Your task to perform on an android device: turn on the 24-hour format for clock Image 0: 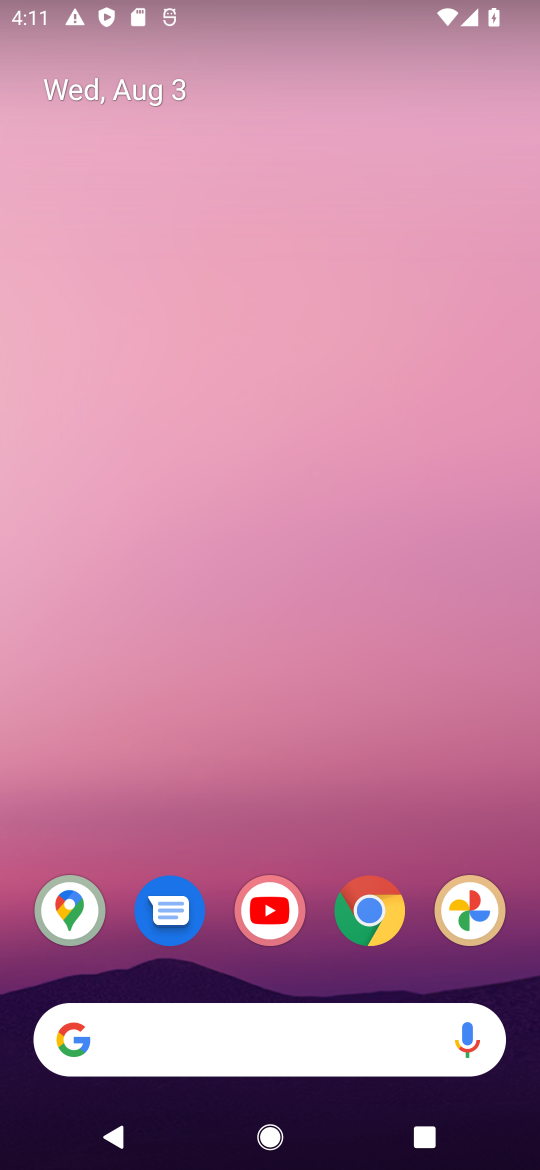
Step 0: press home button
Your task to perform on an android device: turn on the 24-hour format for clock Image 1: 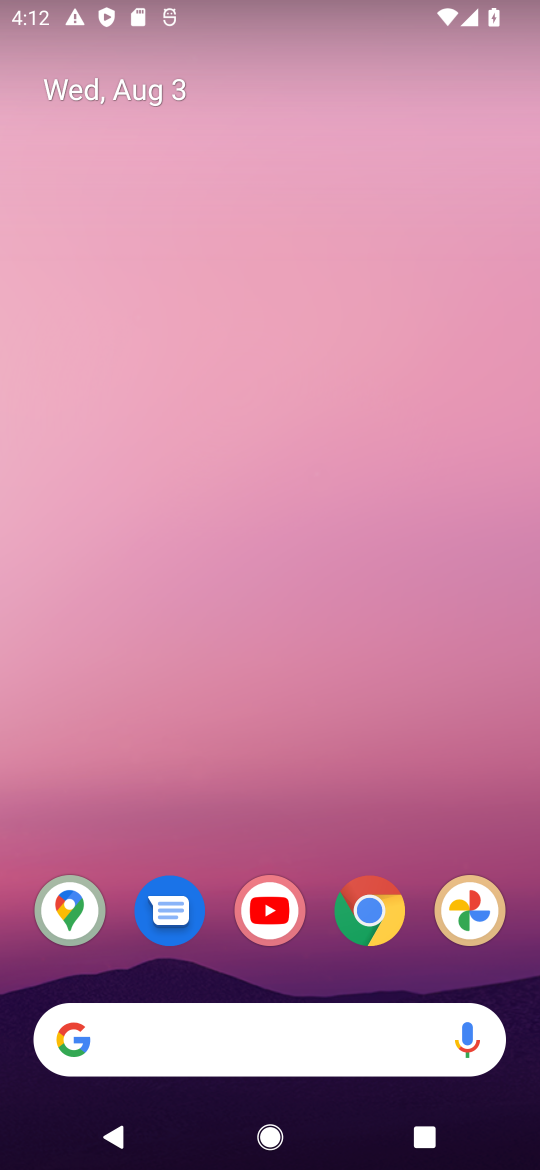
Step 1: drag from (312, 850) to (313, 0)
Your task to perform on an android device: turn on the 24-hour format for clock Image 2: 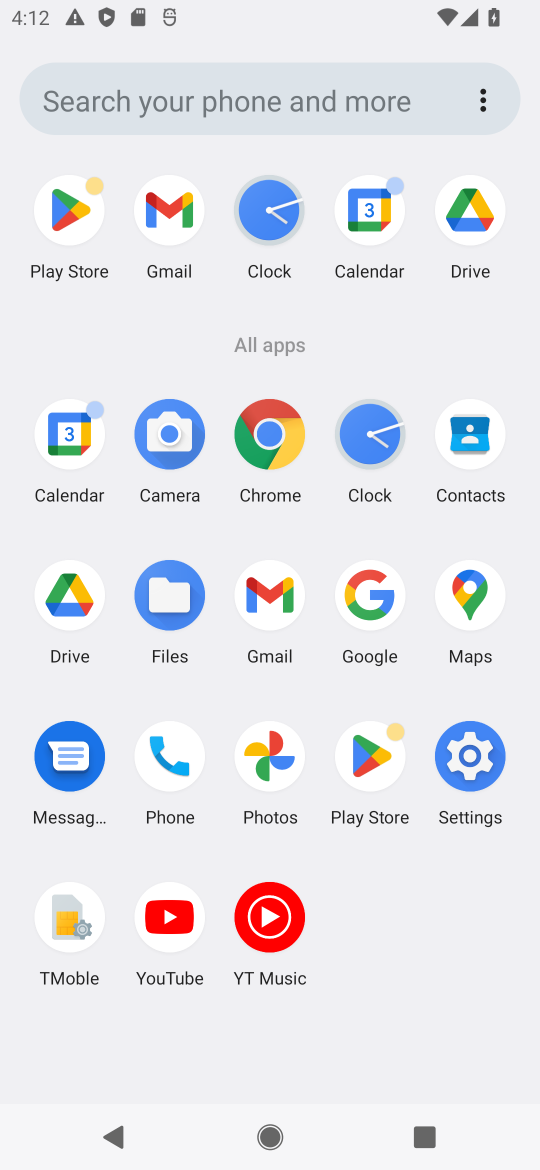
Step 2: click (364, 429)
Your task to perform on an android device: turn on the 24-hour format for clock Image 3: 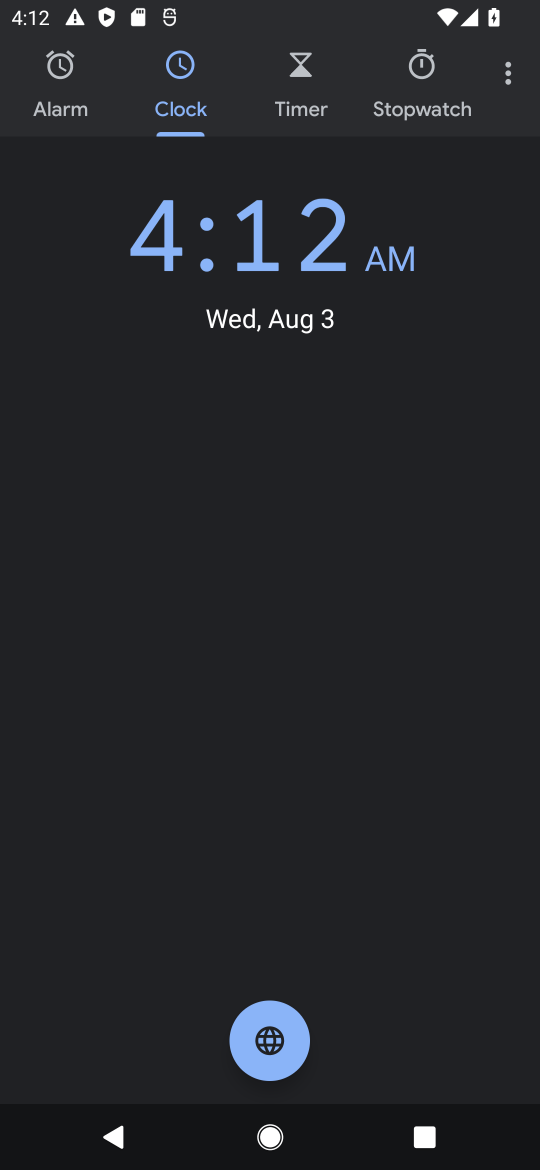
Step 3: click (503, 65)
Your task to perform on an android device: turn on the 24-hour format for clock Image 4: 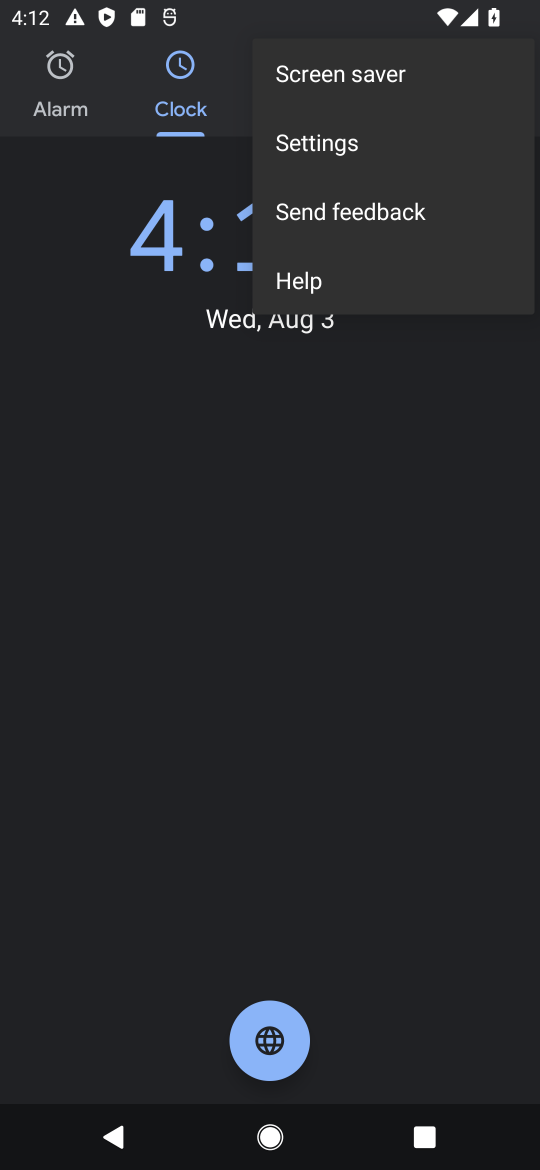
Step 4: click (385, 148)
Your task to perform on an android device: turn on the 24-hour format for clock Image 5: 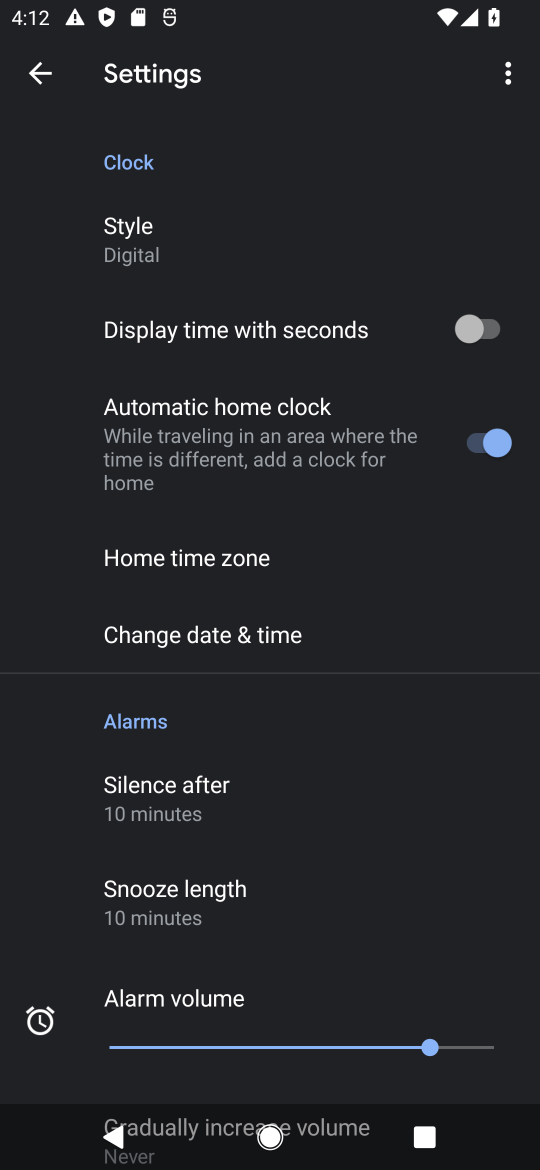
Step 5: click (319, 643)
Your task to perform on an android device: turn on the 24-hour format for clock Image 6: 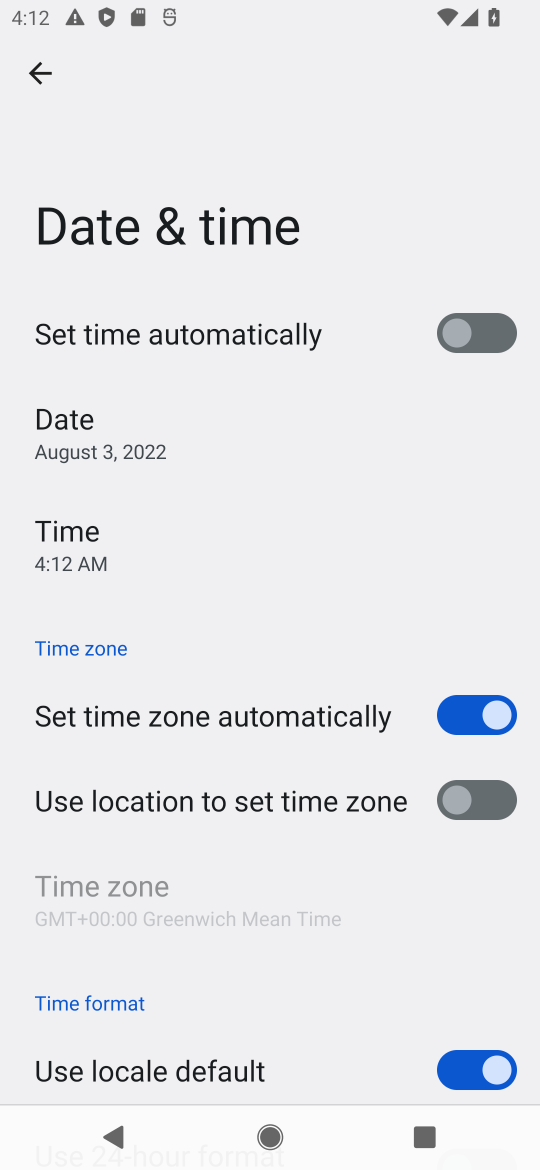
Step 6: drag from (297, 972) to (318, 169)
Your task to perform on an android device: turn on the 24-hour format for clock Image 7: 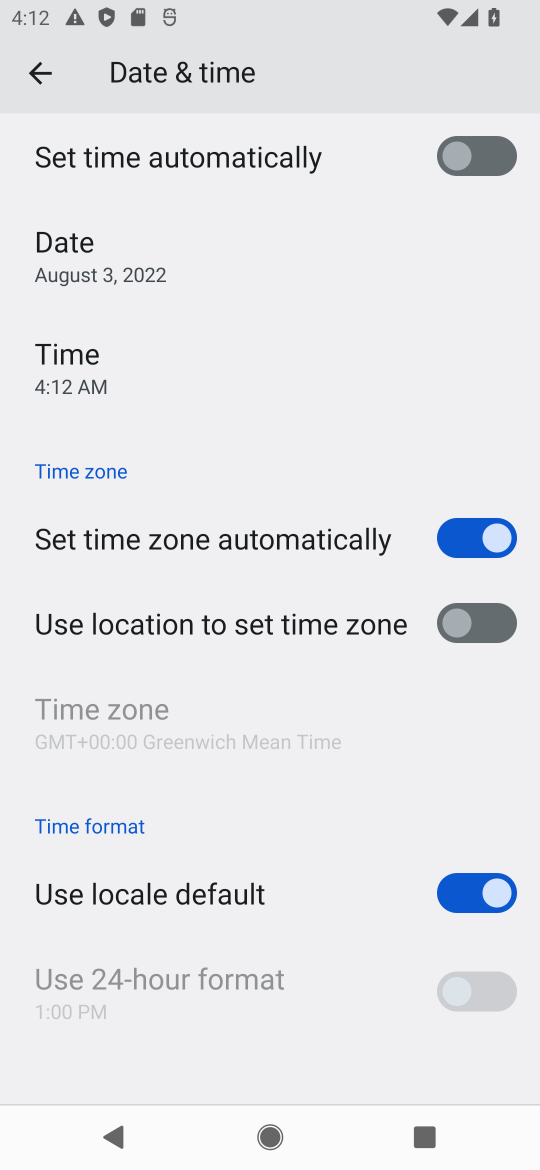
Step 7: click (474, 889)
Your task to perform on an android device: turn on the 24-hour format for clock Image 8: 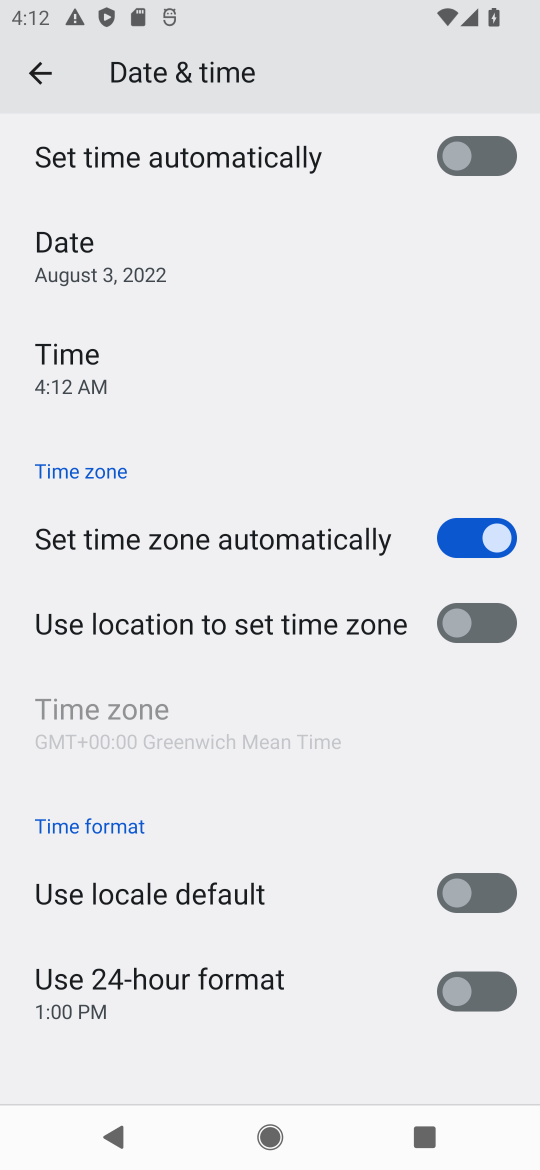
Step 8: click (479, 988)
Your task to perform on an android device: turn on the 24-hour format for clock Image 9: 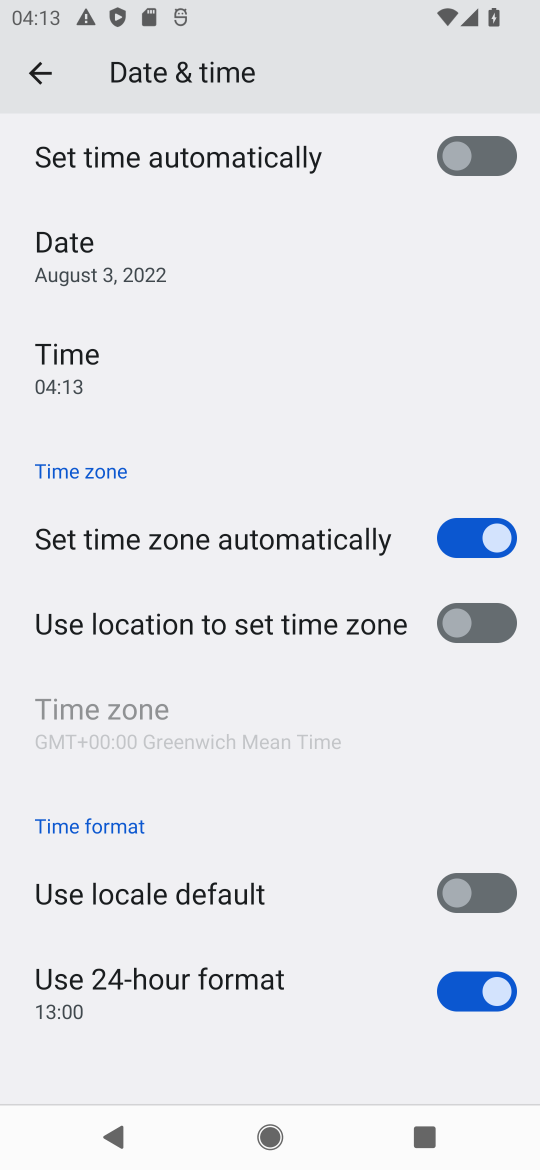
Step 9: task complete